Your task to perform on an android device: turn off wifi Image 0: 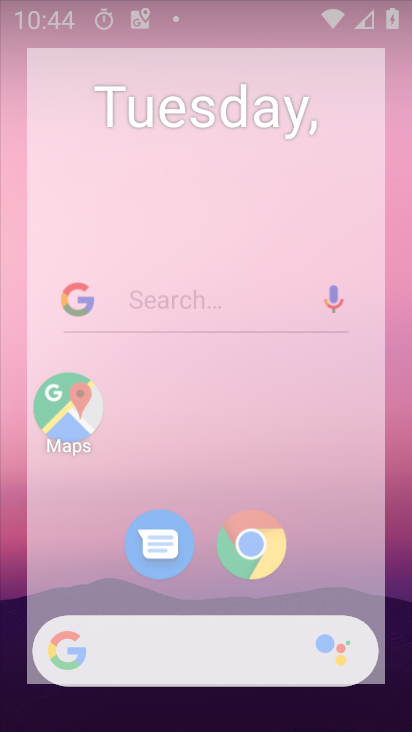
Step 0: drag from (386, 504) to (280, 41)
Your task to perform on an android device: turn off wifi Image 1: 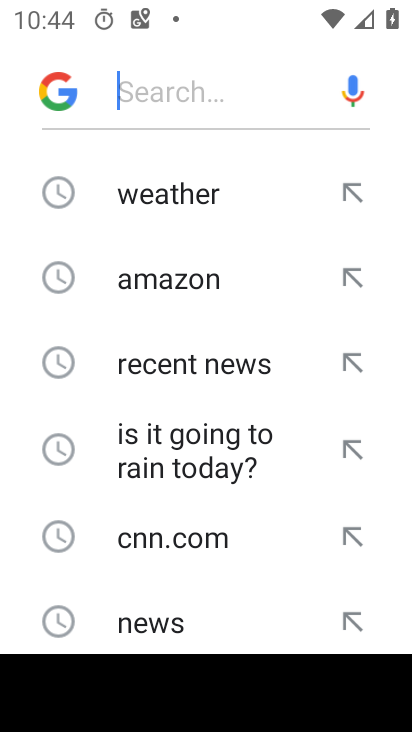
Step 1: press home button
Your task to perform on an android device: turn off wifi Image 2: 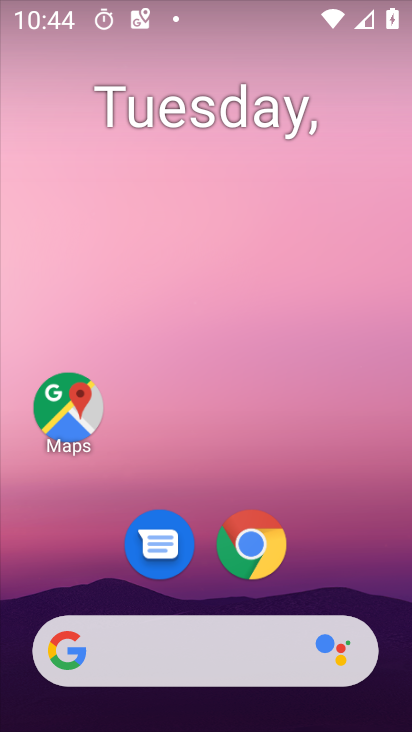
Step 2: press home button
Your task to perform on an android device: turn off wifi Image 3: 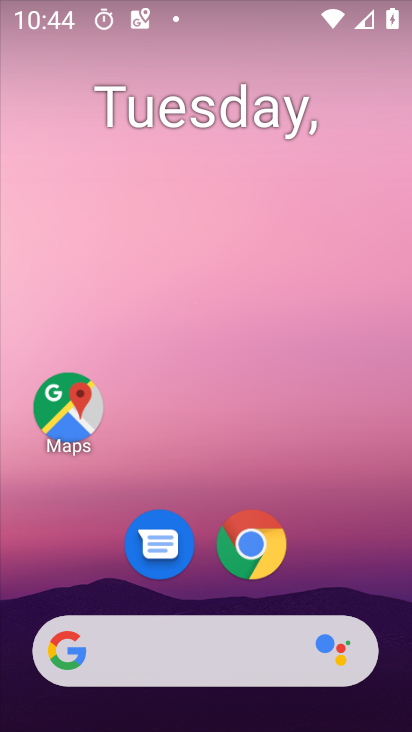
Step 3: drag from (387, 597) to (301, 115)
Your task to perform on an android device: turn off wifi Image 4: 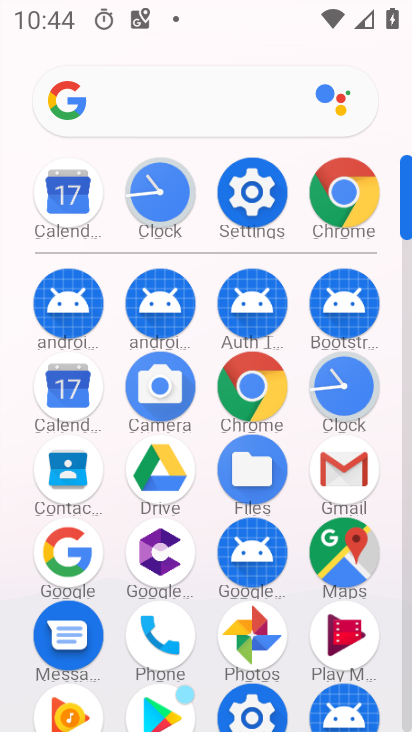
Step 4: click (265, 195)
Your task to perform on an android device: turn off wifi Image 5: 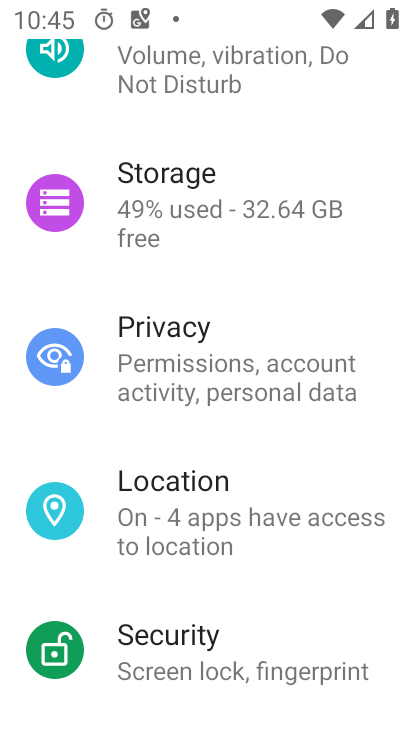
Step 5: drag from (265, 128) to (271, 627)
Your task to perform on an android device: turn off wifi Image 6: 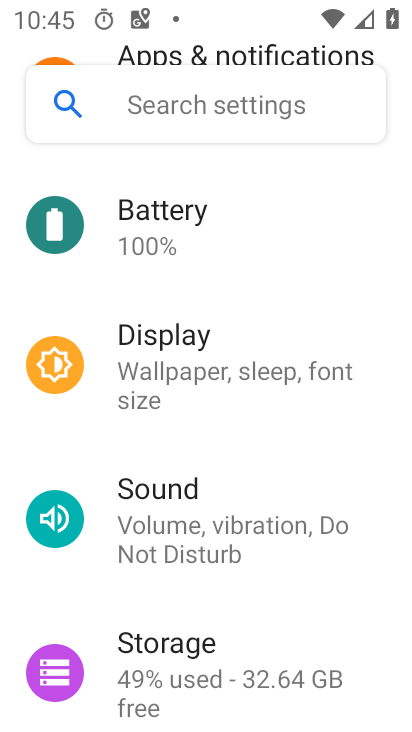
Step 6: drag from (248, 299) to (230, 700)
Your task to perform on an android device: turn off wifi Image 7: 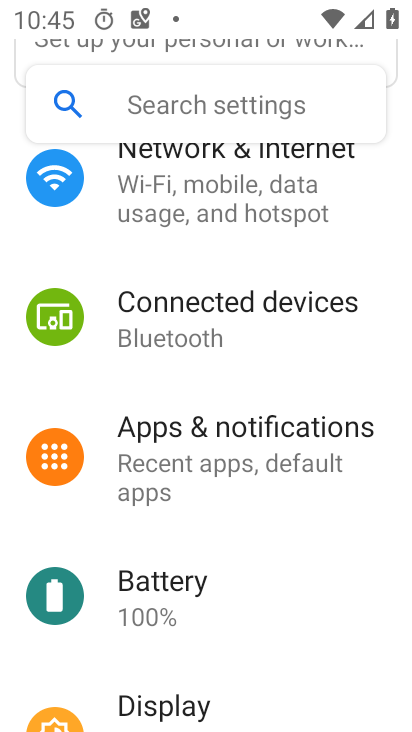
Step 7: click (232, 175)
Your task to perform on an android device: turn off wifi Image 8: 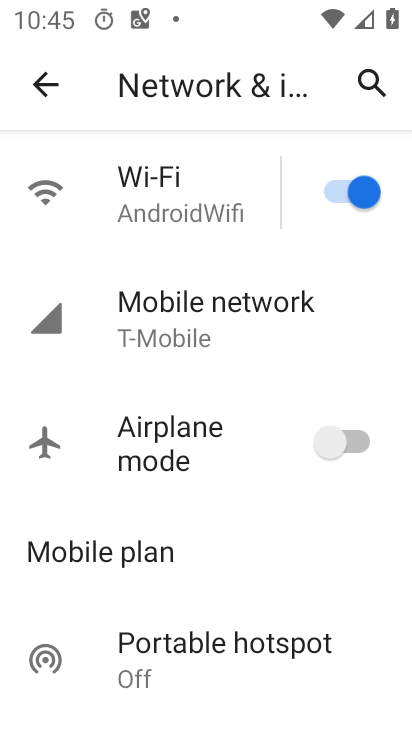
Step 8: click (232, 175)
Your task to perform on an android device: turn off wifi Image 9: 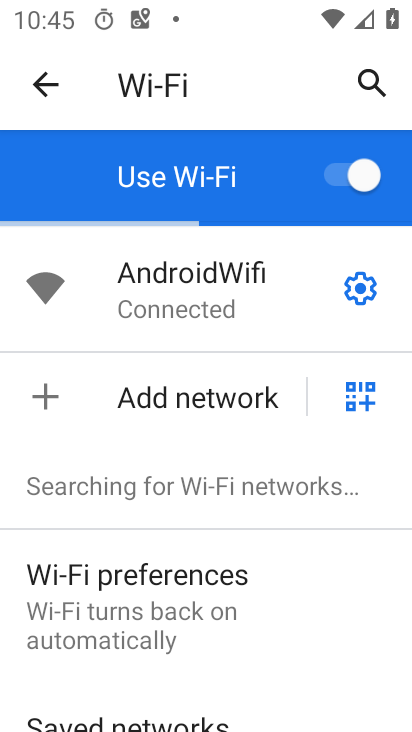
Step 9: click (323, 182)
Your task to perform on an android device: turn off wifi Image 10: 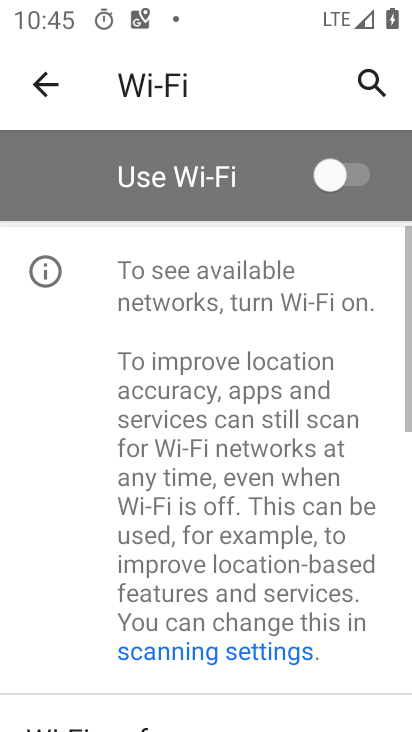
Step 10: task complete